Your task to perform on an android device: check data usage Image 0: 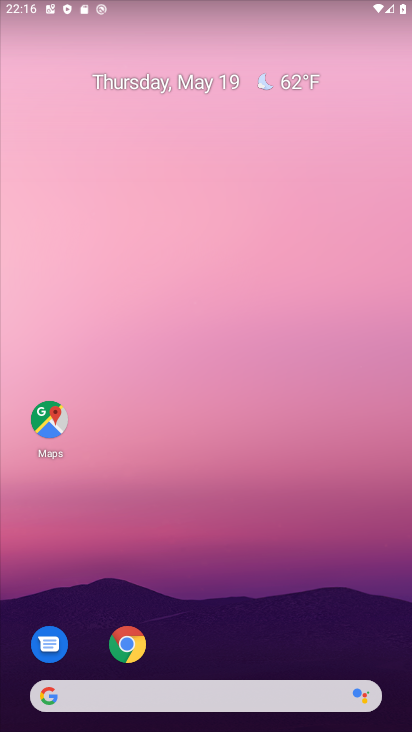
Step 0: drag from (105, 240) to (75, 53)
Your task to perform on an android device: check data usage Image 1: 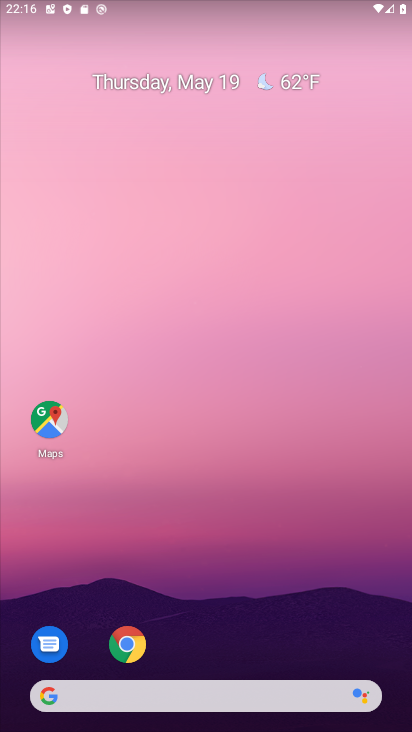
Step 1: drag from (271, 616) to (221, 48)
Your task to perform on an android device: check data usage Image 2: 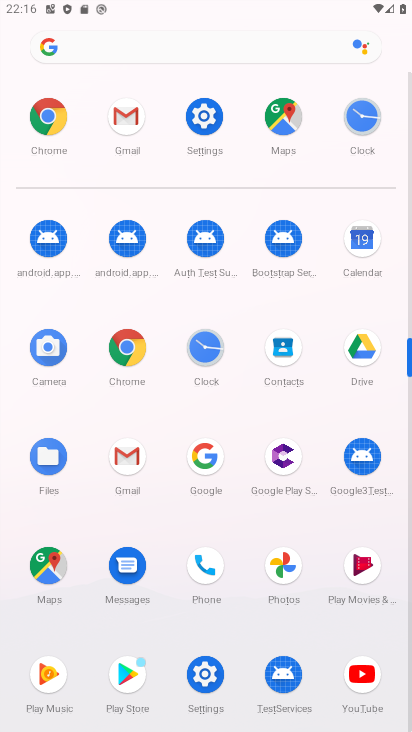
Step 2: click (204, 116)
Your task to perform on an android device: check data usage Image 3: 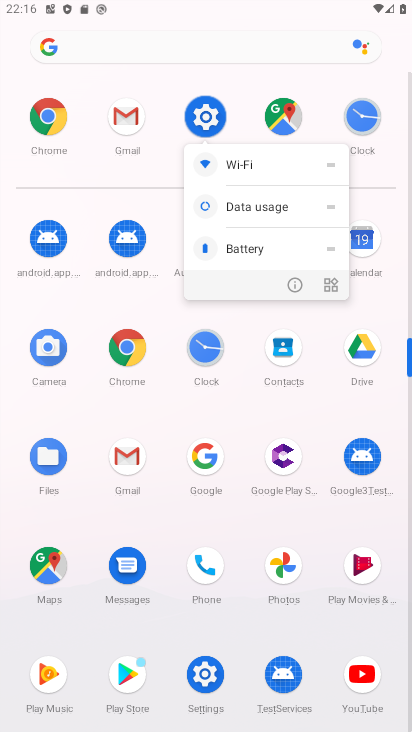
Step 3: click (204, 114)
Your task to perform on an android device: check data usage Image 4: 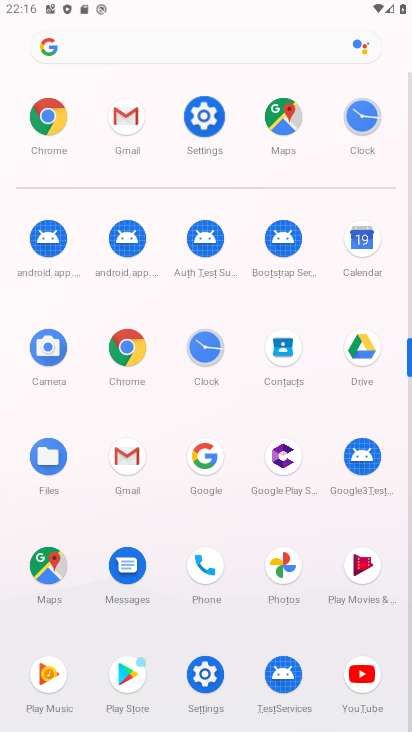
Step 4: click (204, 114)
Your task to perform on an android device: check data usage Image 5: 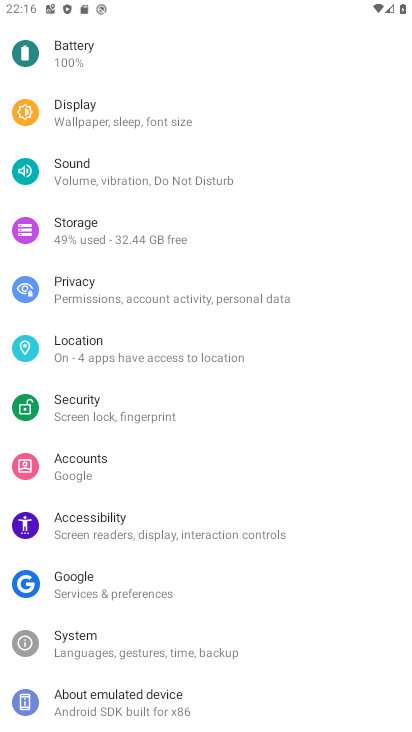
Step 5: click (204, 114)
Your task to perform on an android device: check data usage Image 6: 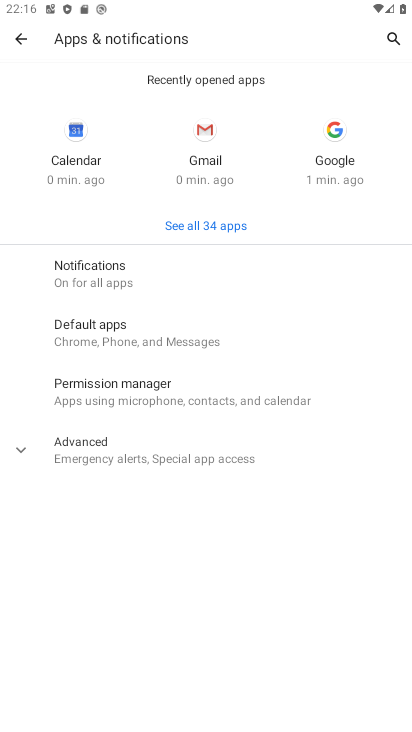
Step 6: click (20, 37)
Your task to perform on an android device: check data usage Image 7: 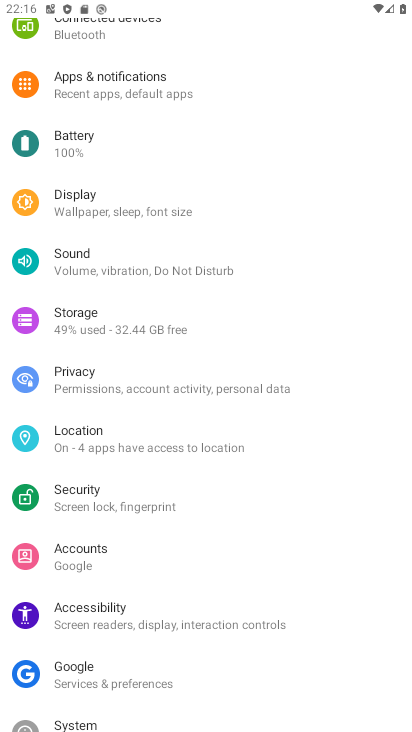
Step 7: drag from (118, 99) to (164, 498)
Your task to perform on an android device: check data usage Image 8: 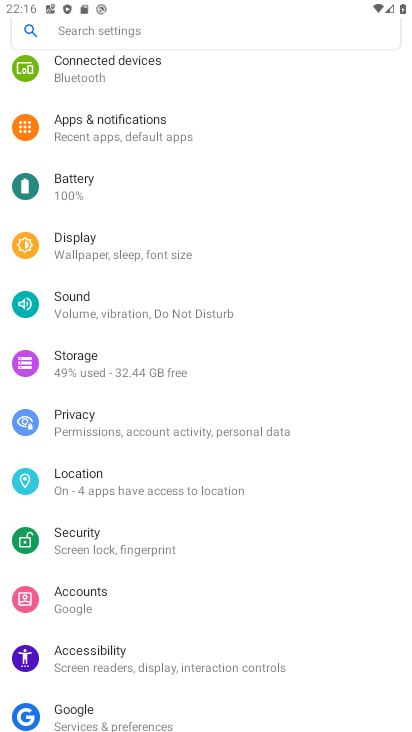
Step 8: drag from (91, 106) to (177, 514)
Your task to perform on an android device: check data usage Image 9: 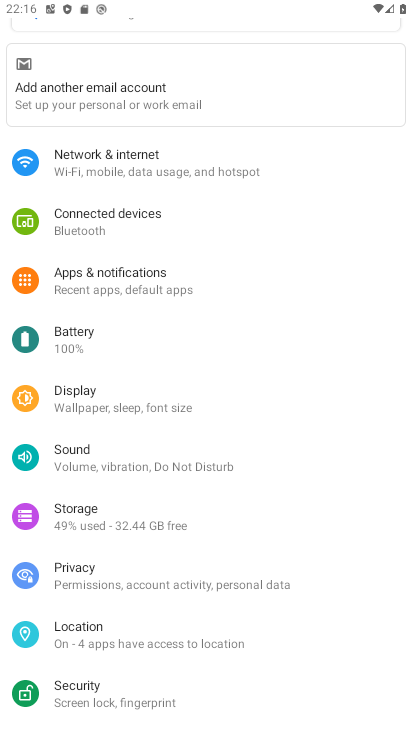
Step 9: click (117, 162)
Your task to perform on an android device: check data usage Image 10: 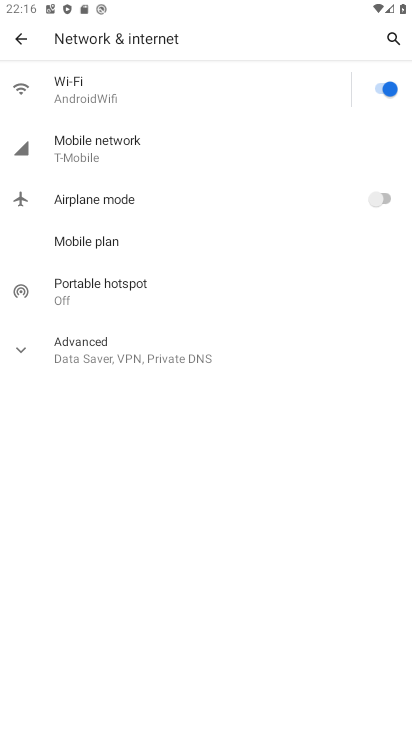
Step 10: click (108, 147)
Your task to perform on an android device: check data usage Image 11: 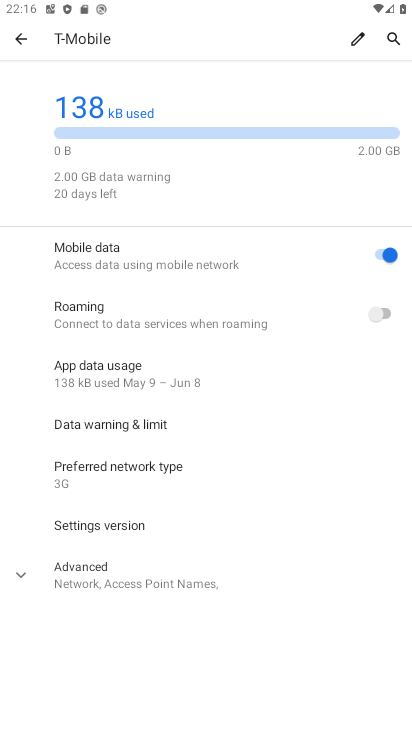
Step 11: task complete